Your task to perform on an android device: Add bose quietcomfort 35 to the cart on ebay.com Image 0: 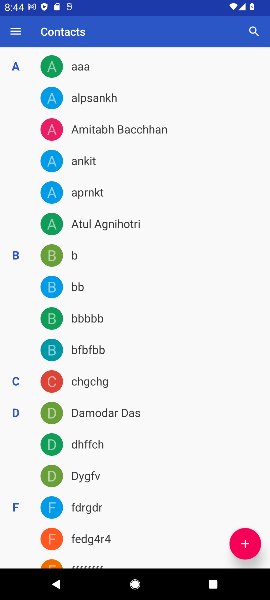
Step 0: press home button
Your task to perform on an android device: Add bose quietcomfort 35 to the cart on ebay.com Image 1: 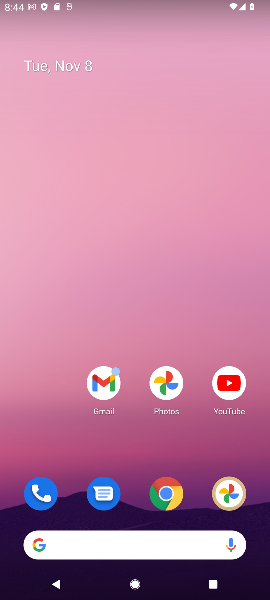
Step 1: click (173, 505)
Your task to perform on an android device: Add bose quietcomfort 35 to the cart on ebay.com Image 2: 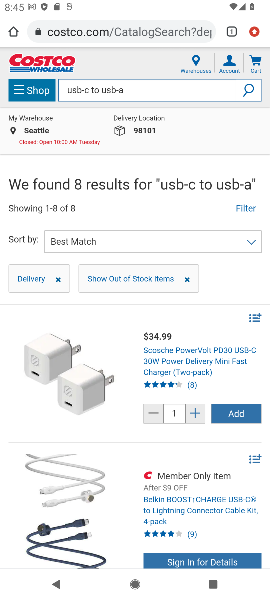
Step 2: click (103, 25)
Your task to perform on an android device: Add bose quietcomfort 35 to the cart on ebay.com Image 3: 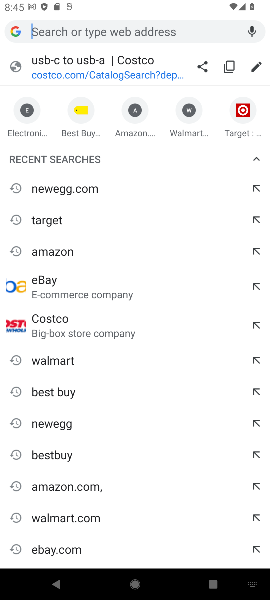
Step 3: type "ebay.com"
Your task to perform on an android device: Add bose quietcomfort 35 to the cart on ebay.com Image 4: 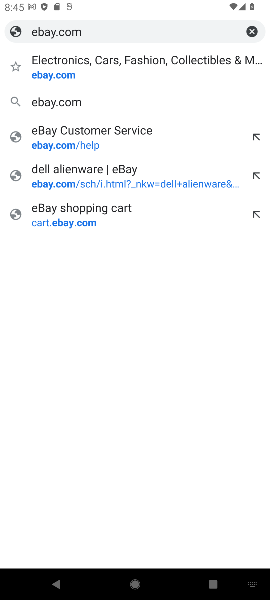
Step 4: click (56, 77)
Your task to perform on an android device: Add bose quietcomfort 35 to the cart on ebay.com Image 5: 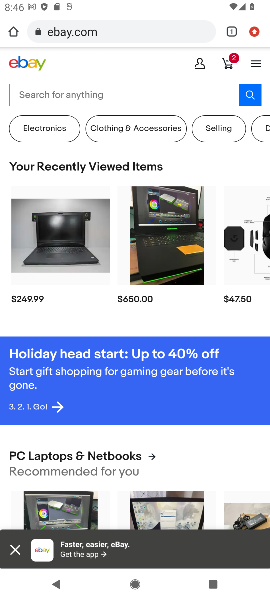
Step 5: click (80, 94)
Your task to perform on an android device: Add bose quietcomfort 35 to the cart on ebay.com Image 6: 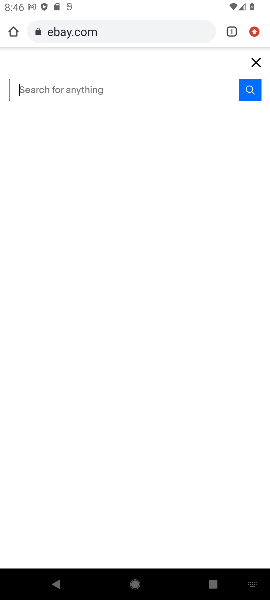
Step 6: type "bose quietcomfort 35"
Your task to perform on an android device: Add bose quietcomfort 35 to the cart on ebay.com Image 7: 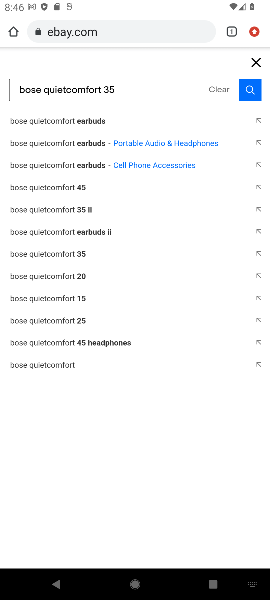
Step 7: click (251, 93)
Your task to perform on an android device: Add bose quietcomfort 35 to the cart on ebay.com Image 8: 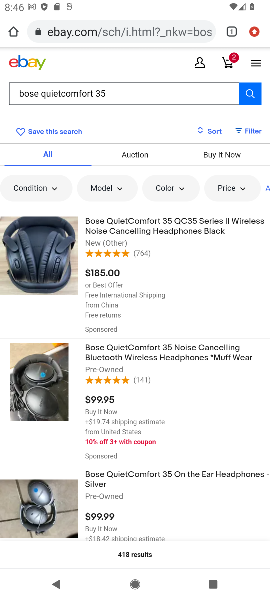
Step 8: click (52, 271)
Your task to perform on an android device: Add bose quietcomfort 35 to the cart on ebay.com Image 9: 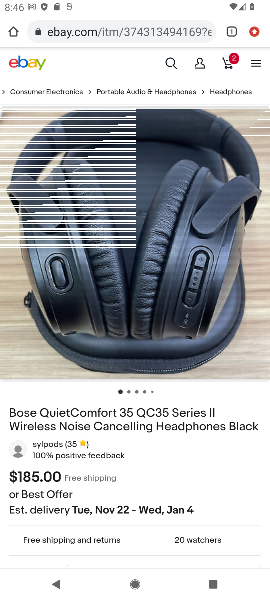
Step 9: drag from (123, 447) to (142, 216)
Your task to perform on an android device: Add bose quietcomfort 35 to the cart on ebay.com Image 10: 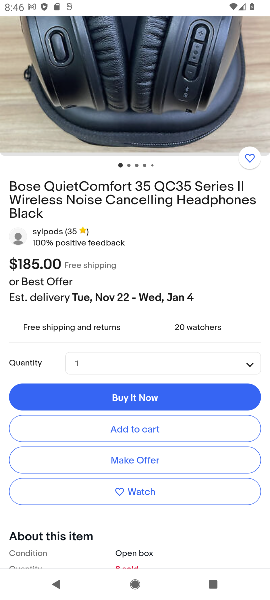
Step 10: click (118, 427)
Your task to perform on an android device: Add bose quietcomfort 35 to the cart on ebay.com Image 11: 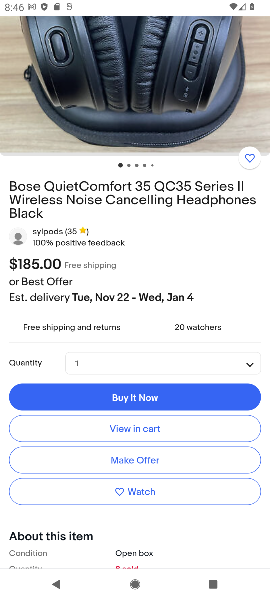
Step 11: task complete